Your task to perform on an android device: turn off improve location accuracy Image 0: 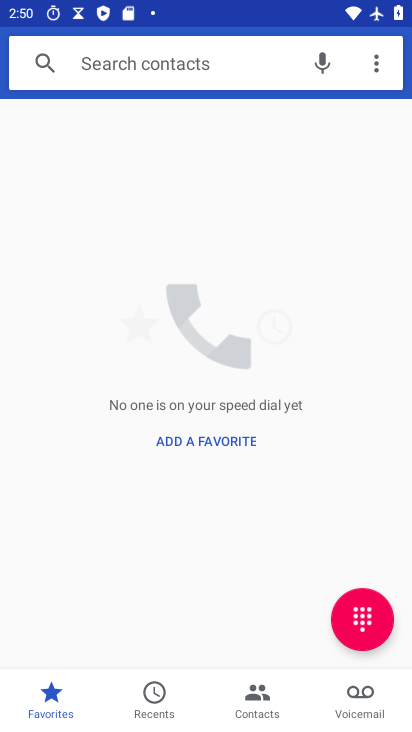
Step 0: press home button
Your task to perform on an android device: turn off improve location accuracy Image 1: 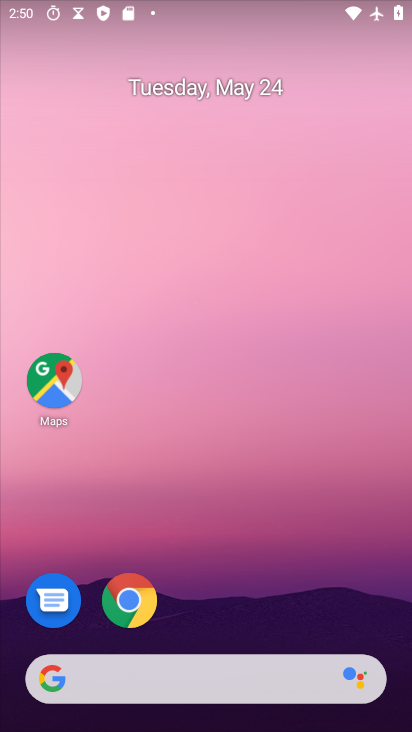
Step 1: drag from (268, 478) to (265, 57)
Your task to perform on an android device: turn off improve location accuracy Image 2: 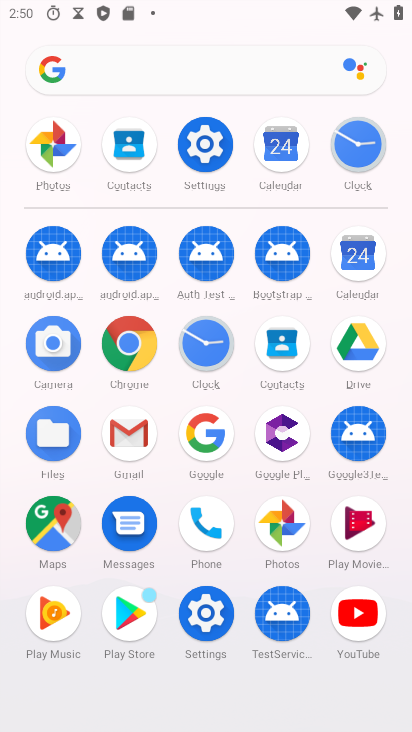
Step 2: click (212, 147)
Your task to perform on an android device: turn off improve location accuracy Image 3: 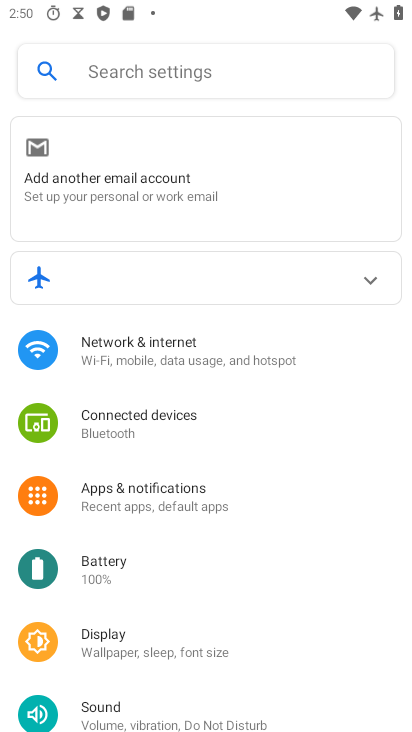
Step 3: drag from (215, 622) to (272, 176)
Your task to perform on an android device: turn off improve location accuracy Image 4: 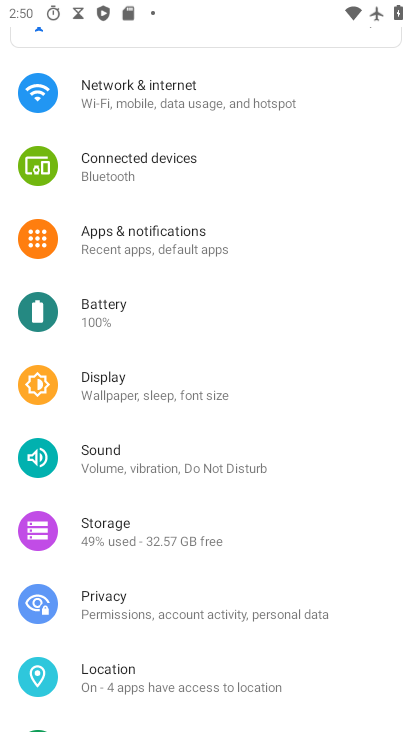
Step 4: click (173, 671)
Your task to perform on an android device: turn off improve location accuracy Image 5: 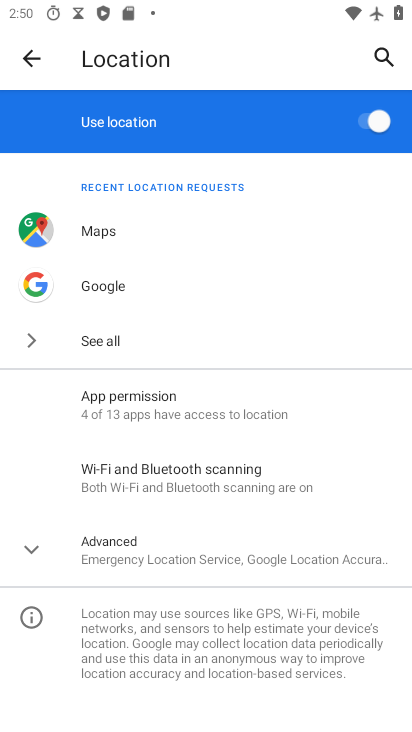
Step 5: click (190, 548)
Your task to perform on an android device: turn off improve location accuracy Image 6: 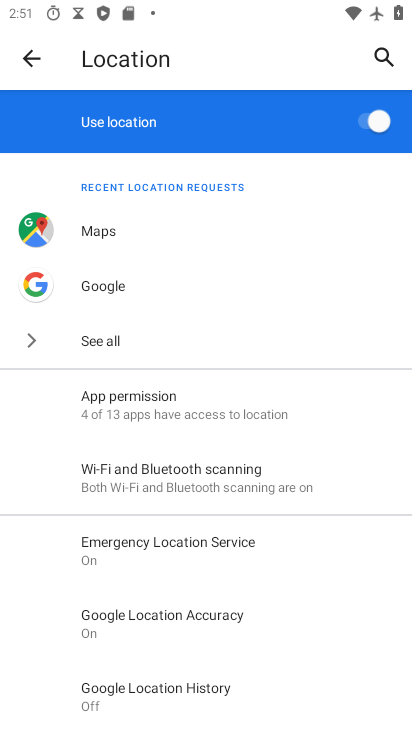
Step 6: click (233, 615)
Your task to perform on an android device: turn off improve location accuracy Image 7: 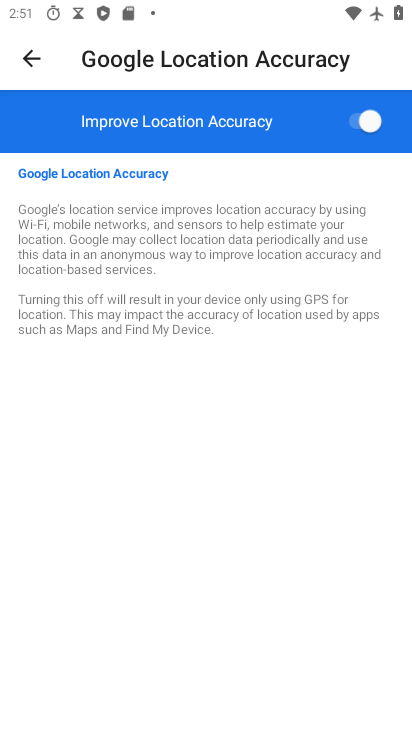
Step 7: click (368, 118)
Your task to perform on an android device: turn off improve location accuracy Image 8: 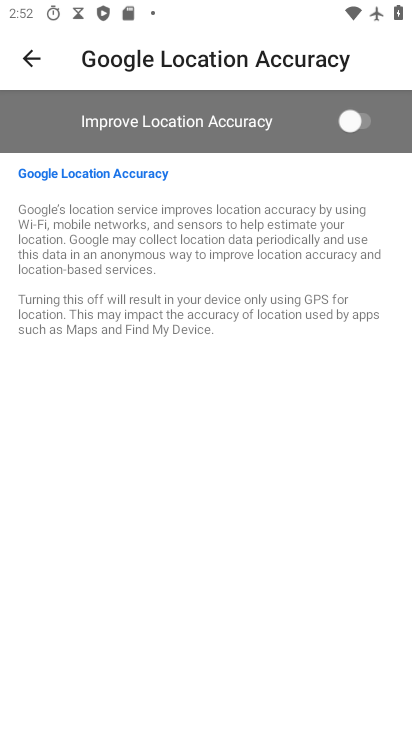
Step 8: task complete